Your task to perform on an android device: Add panasonic triple a to the cart on ebay, then select checkout. Image 0: 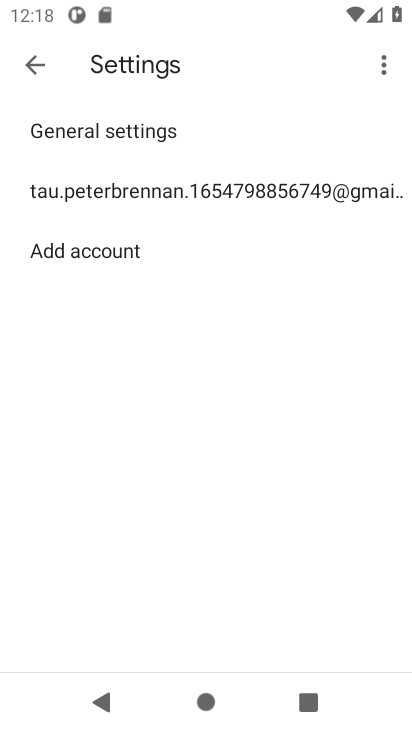
Step 0: press home button
Your task to perform on an android device: Add panasonic triple a to the cart on ebay, then select checkout. Image 1: 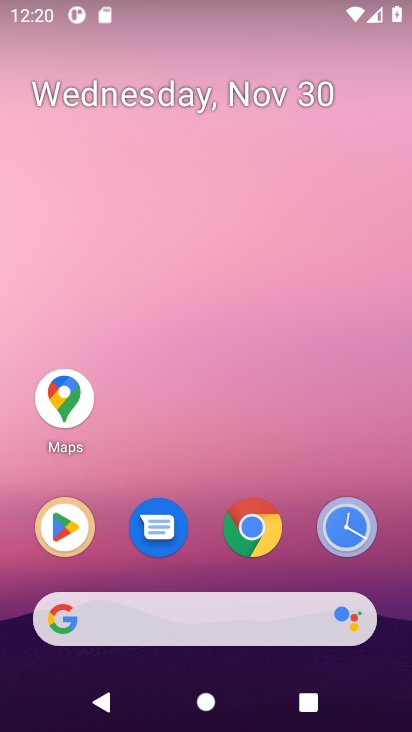
Step 1: type "ebay"
Your task to perform on an android device: Add panasonic triple a to the cart on ebay, then select checkout. Image 2: 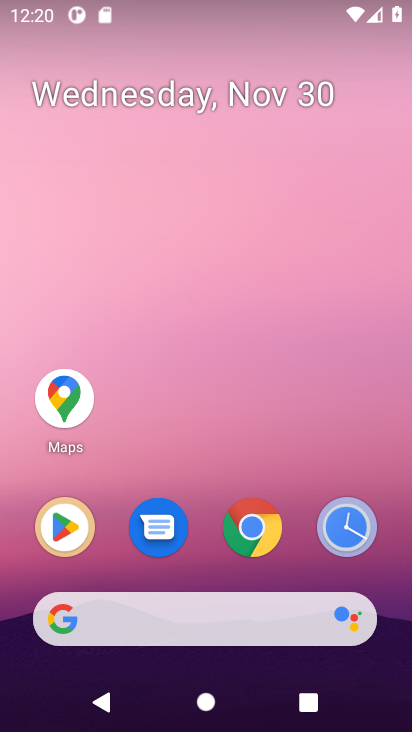
Step 2: click (160, 610)
Your task to perform on an android device: Add panasonic triple a to the cart on ebay, then select checkout. Image 3: 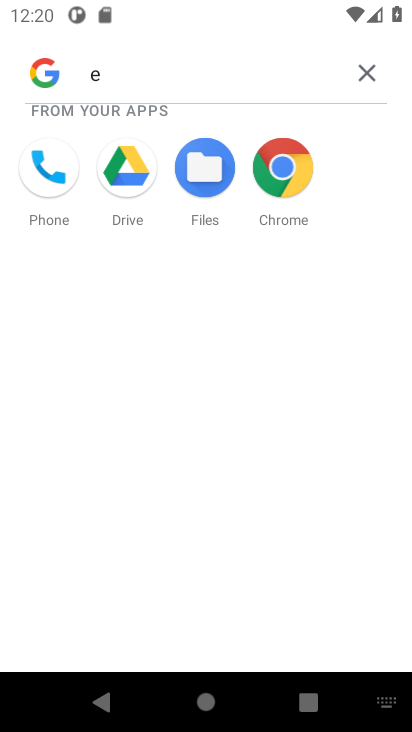
Step 3: click (294, 170)
Your task to perform on an android device: Add panasonic triple a to the cart on ebay, then select checkout. Image 4: 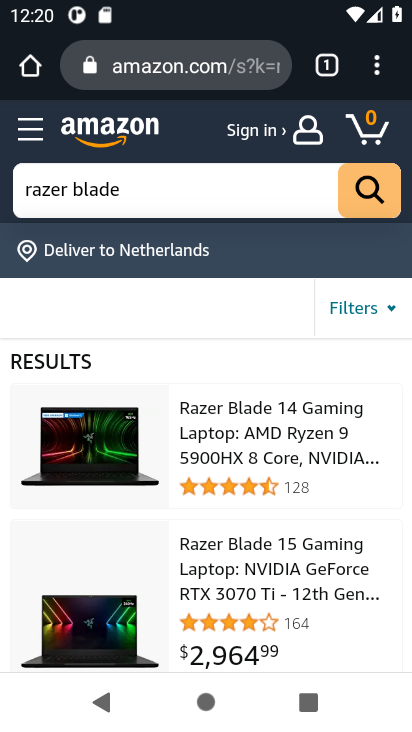
Step 4: click (266, 191)
Your task to perform on an android device: Add panasonic triple a to the cart on ebay, then select checkout. Image 5: 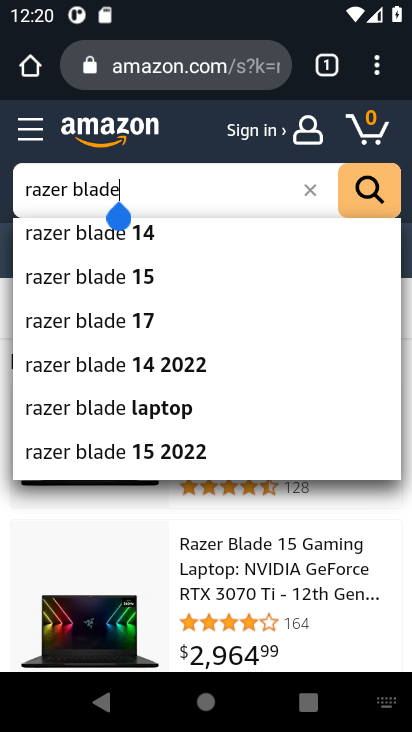
Step 5: click (310, 188)
Your task to perform on an android device: Add panasonic triple a to the cart on ebay, then select checkout. Image 6: 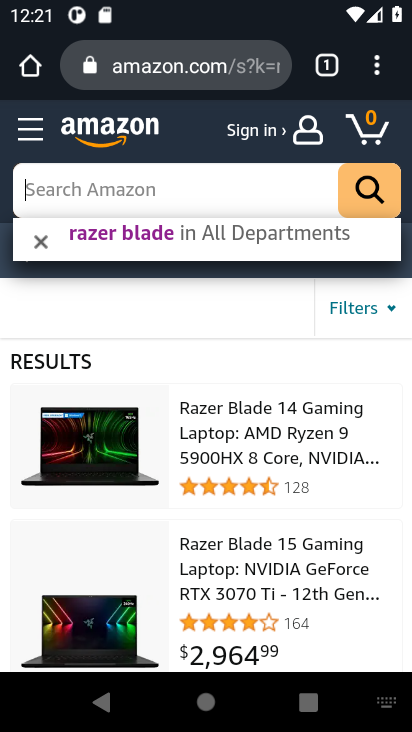
Step 6: click (199, 63)
Your task to perform on an android device: Add panasonic triple a to the cart on ebay, then select checkout. Image 7: 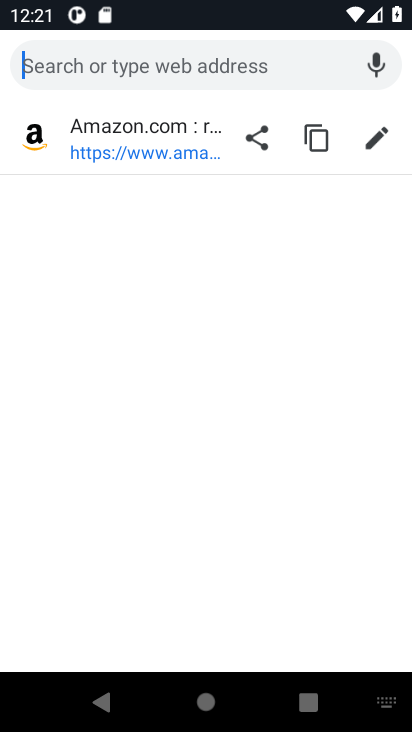
Step 7: type "ebay.com"
Your task to perform on an android device: Add panasonic triple a to the cart on ebay, then select checkout. Image 8: 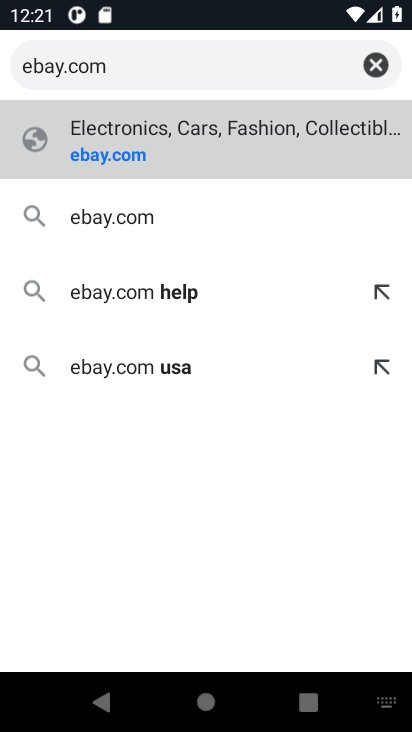
Step 8: click (179, 130)
Your task to perform on an android device: Add panasonic triple a to the cart on ebay, then select checkout. Image 9: 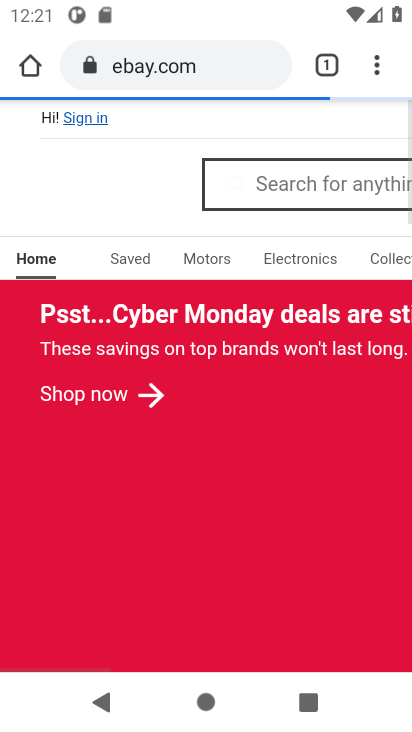
Step 9: click (260, 410)
Your task to perform on an android device: Add panasonic triple a to the cart on ebay, then select checkout. Image 10: 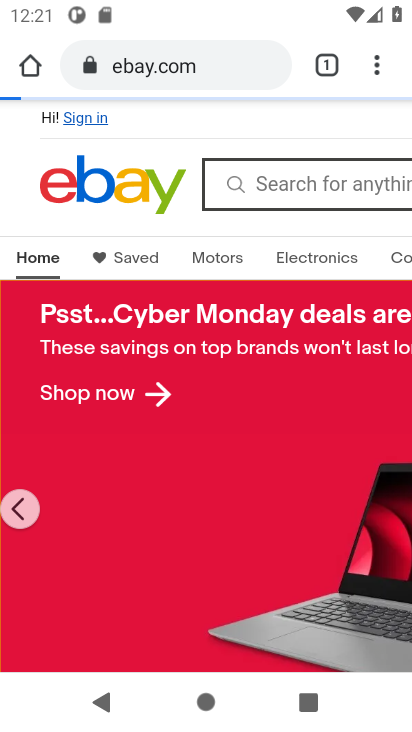
Step 10: task complete